Your task to perform on an android device: toggle location history Image 0: 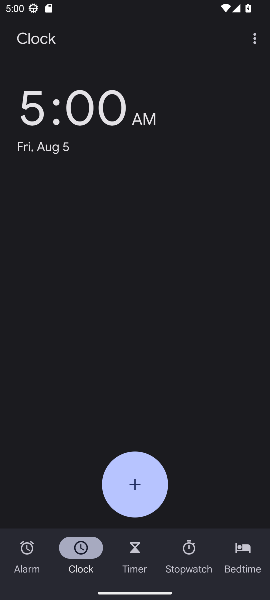
Step 0: press home button
Your task to perform on an android device: toggle location history Image 1: 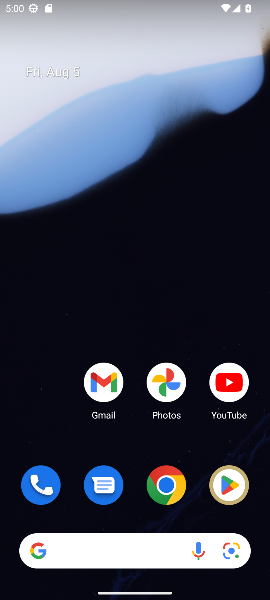
Step 1: drag from (183, 350) to (183, 99)
Your task to perform on an android device: toggle location history Image 2: 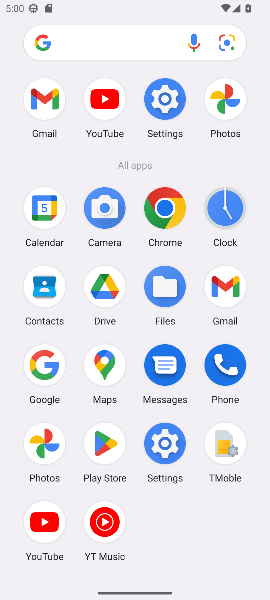
Step 2: click (172, 446)
Your task to perform on an android device: toggle location history Image 3: 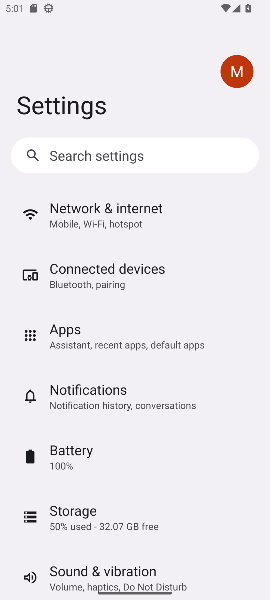
Step 3: drag from (185, 558) to (171, 333)
Your task to perform on an android device: toggle location history Image 4: 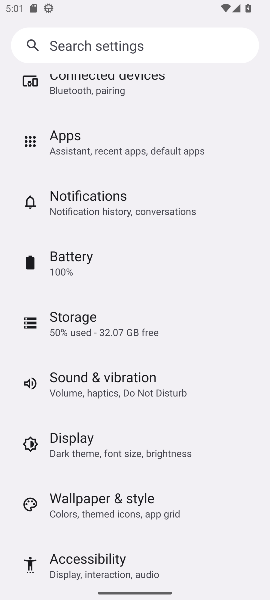
Step 4: drag from (167, 536) to (114, 257)
Your task to perform on an android device: toggle location history Image 5: 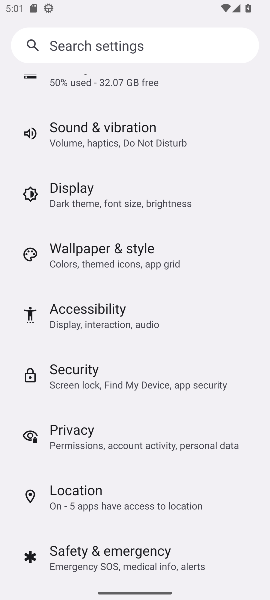
Step 5: click (128, 504)
Your task to perform on an android device: toggle location history Image 6: 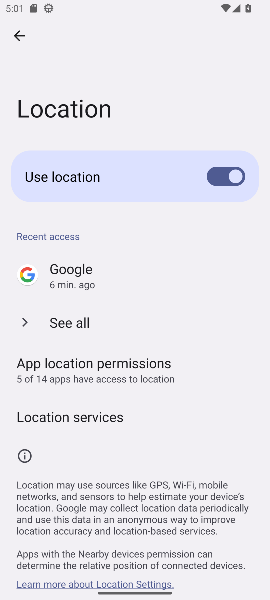
Step 6: click (148, 418)
Your task to perform on an android device: toggle location history Image 7: 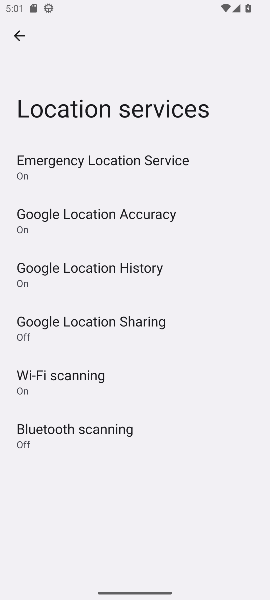
Step 7: click (150, 274)
Your task to perform on an android device: toggle location history Image 8: 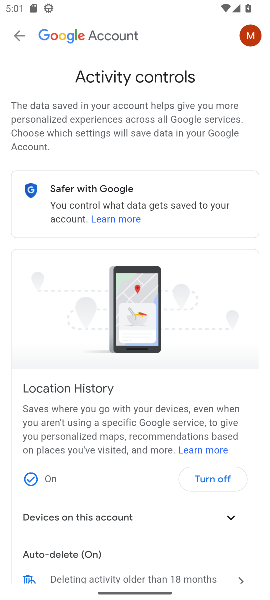
Step 8: click (221, 476)
Your task to perform on an android device: toggle location history Image 9: 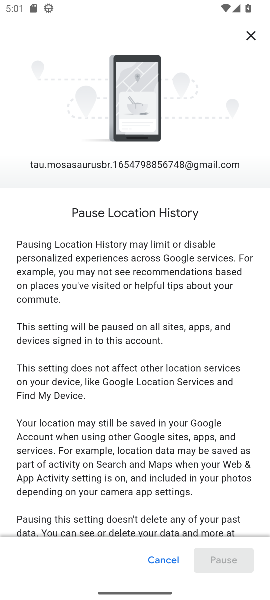
Step 9: drag from (202, 453) to (199, 77)
Your task to perform on an android device: toggle location history Image 10: 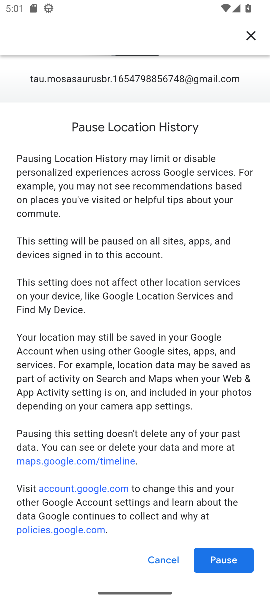
Step 10: click (235, 554)
Your task to perform on an android device: toggle location history Image 11: 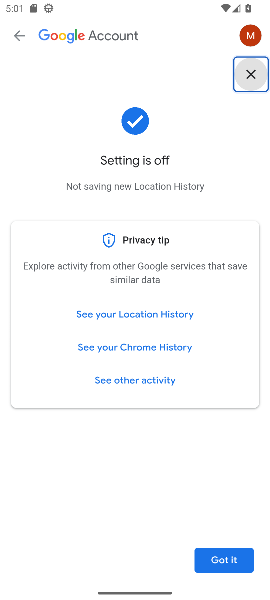
Step 11: click (222, 564)
Your task to perform on an android device: toggle location history Image 12: 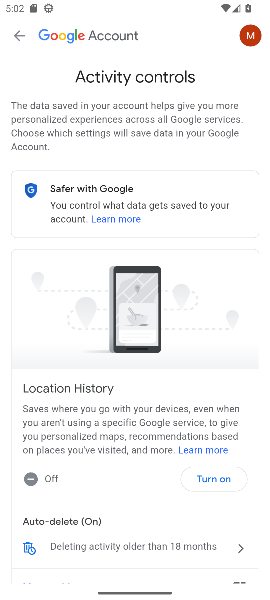
Step 12: task complete